Your task to perform on an android device: Open Google Maps and go to "Timeline" Image 0: 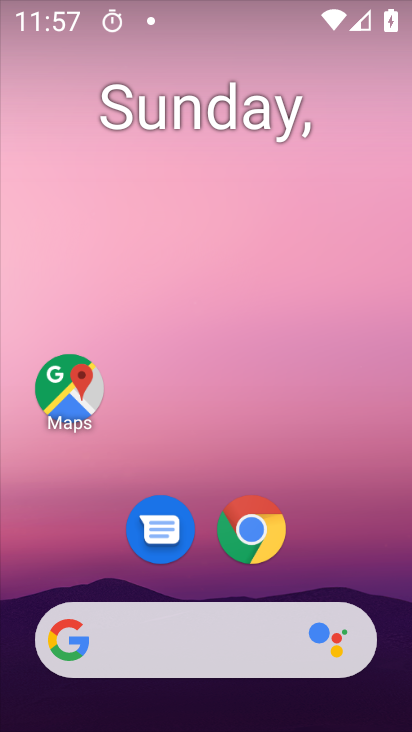
Step 0: drag from (374, 575) to (382, 258)
Your task to perform on an android device: Open Google Maps and go to "Timeline" Image 1: 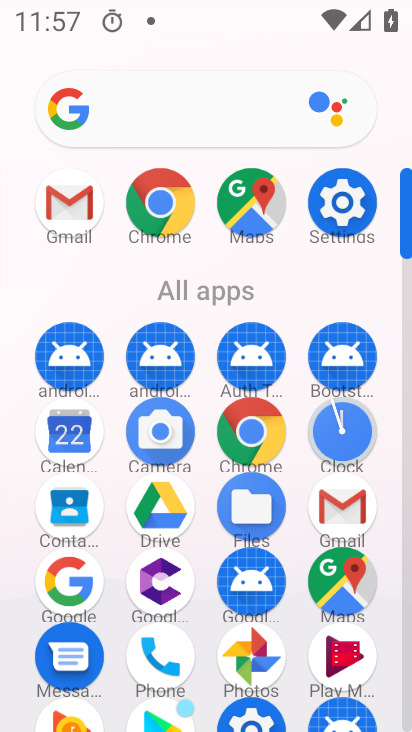
Step 1: click (359, 581)
Your task to perform on an android device: Open Google Maps and go to "Timeline" Image 2: 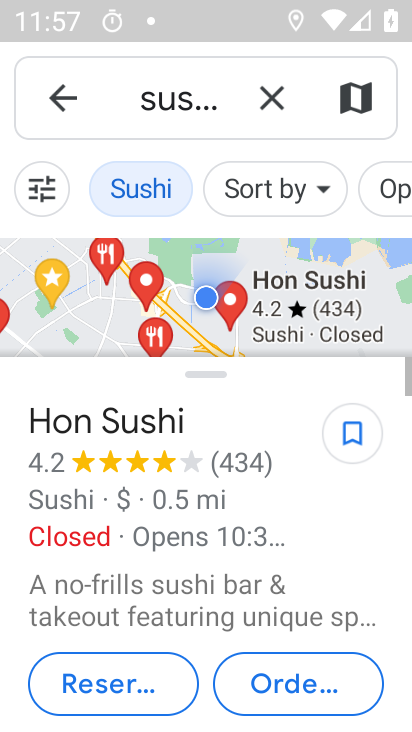
Step 2: click (67, 113)
Your task to perform on an android device: Open Google Maps and go to "Timeline" Image 3: 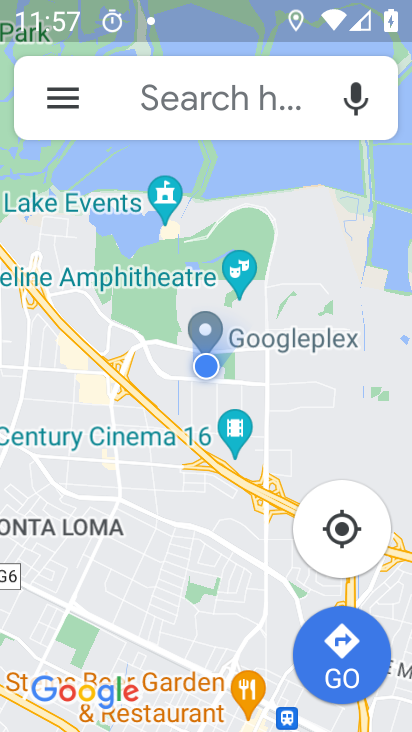
Step 3: click (64, 107)
Your task to perform on an android device: Open Google Maps and go to "Timeline" Image 4: 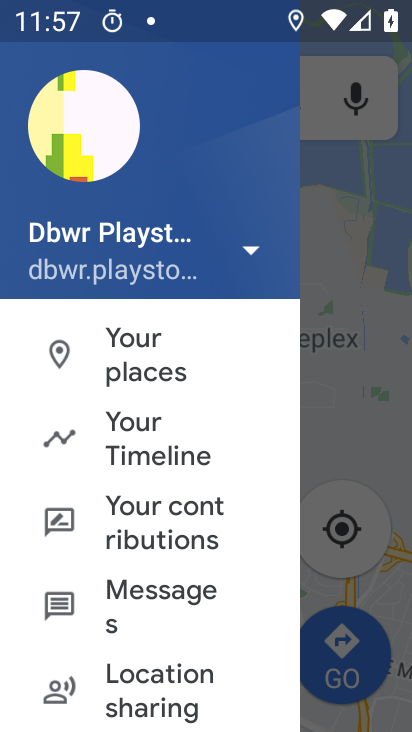
Step 4: drag from (255, 608) to (254, 445)
Your task to perform on an android device: Open Google Maps and go to "Timeline" Image 5: 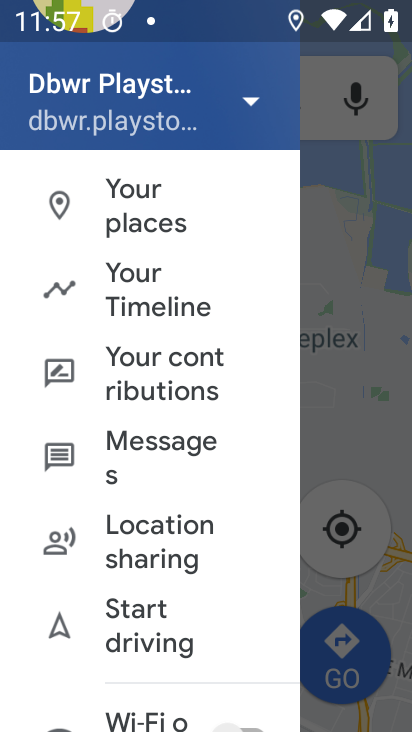
Step 5: drag from (247, 632) to (238, 468)
Your task to perform on an android device: Open Google Maps and go to "Timeline" Image 6: 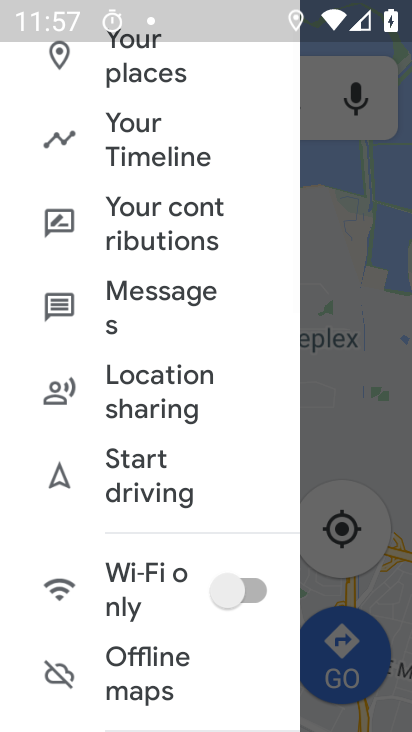
Step 6: drag from (209, 681) to (225, 440)
Your task to perform on an android device: Open Google Maps and go to "Timeline" Image 7: 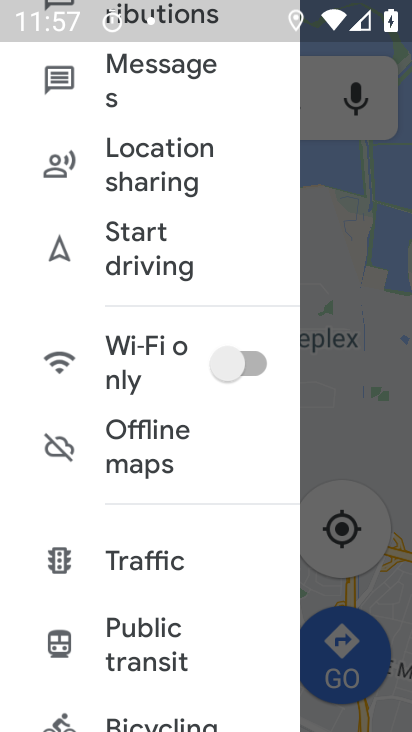
Step 7: drag from (235, 665) to (239, 623)
Your task to perform on an android device: Open Google Maps and go to "Timeline" Image 8: 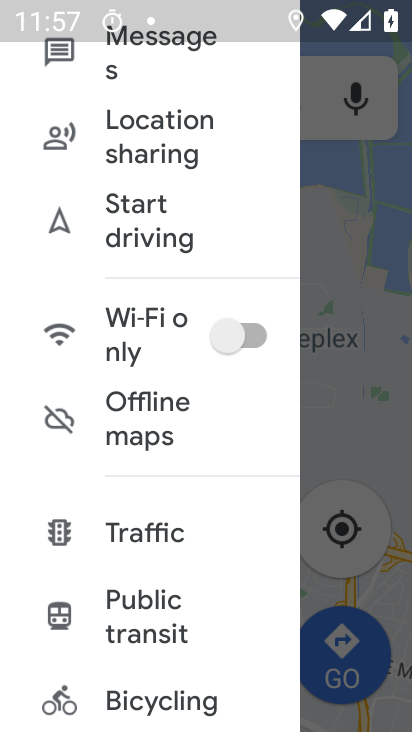
Step 8: drag from (238, 611) to (247, 413)
Your task to perform on an android device: Open Google Maps and go to "Timeline" Image 9: 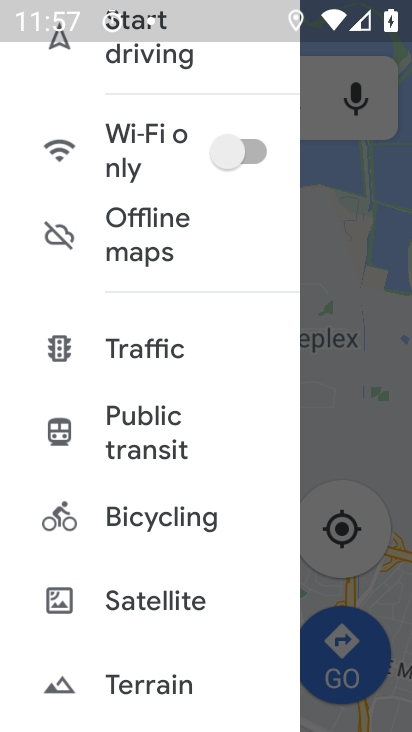
Step 9: drag from (251, 355) to (251, 498)
Your task to perform on an android device: Open Google Maps and go to "Timeline" Image 10: 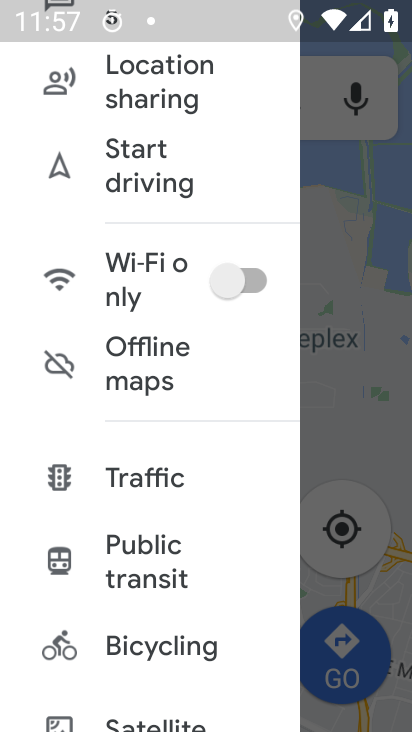
Step 10: drag from (249, 369) to (249, 505)
Your task to perform on an android device: Open Google Maps and go to "Timeline" Image 11: 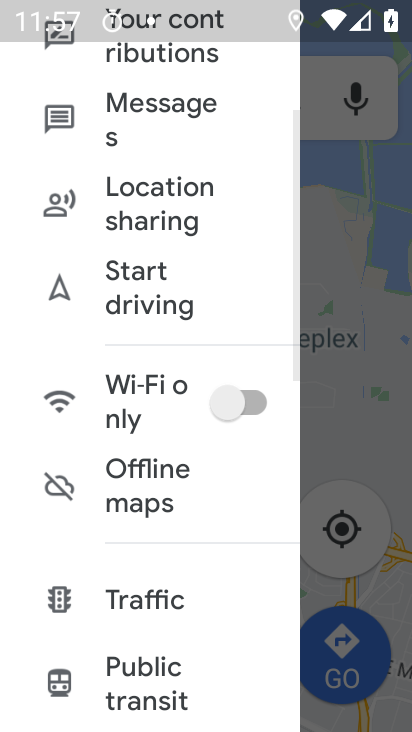
Step 11: drag from (251, 287) to (248, 479)
Your task to perform on an android device: Open Google Maps and go to "Timeline" Image 12: 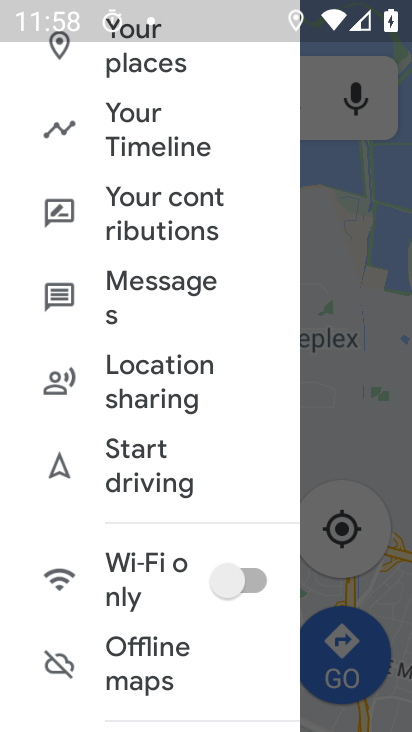
Step 12: click (205, 124)
Your task to perform on an android device: Open Google Maps and go to "Timeline" Image 13: 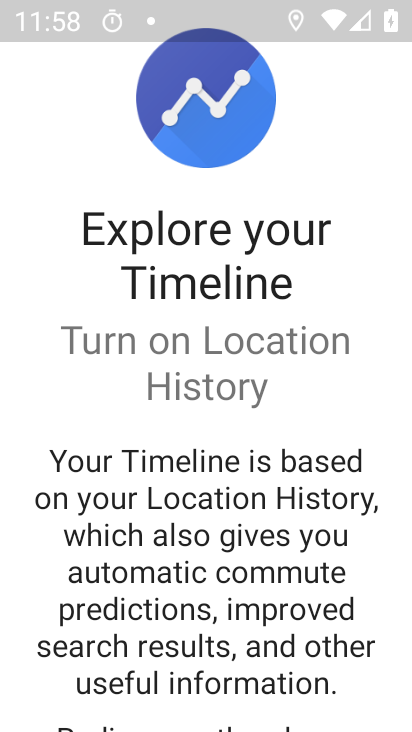
Step 13: task complete